Your task to perform on an android device: toggle sleep mode Image 0: 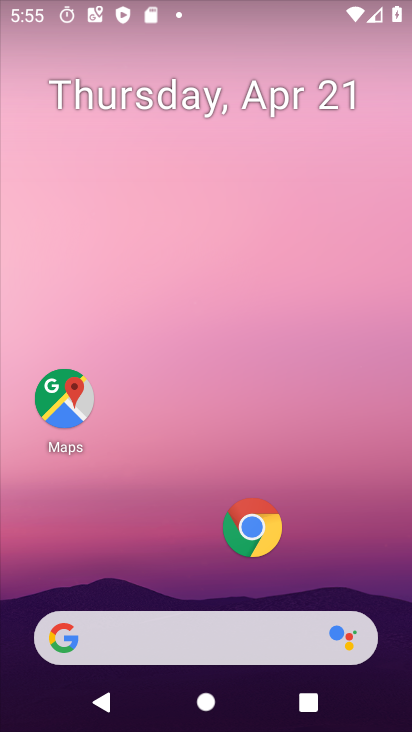
Step 0: drag from (190, 537) to (338, 57)
Your task to perform on an android device: toggle sleep mode Image 1: 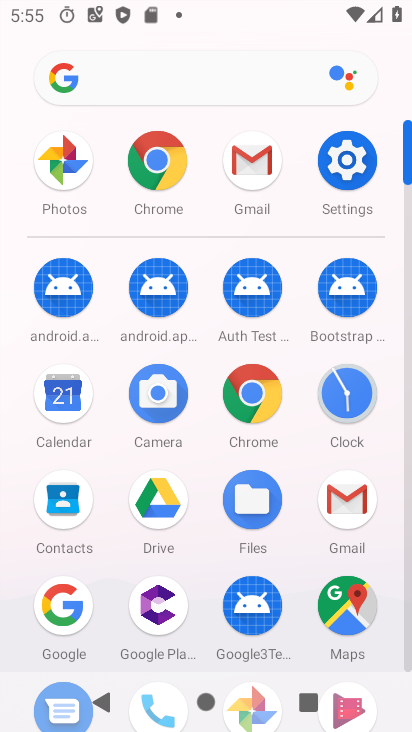
Step 1: click (343, 163)
Your task to perform on an android device: toggle sleep mode Image 2: 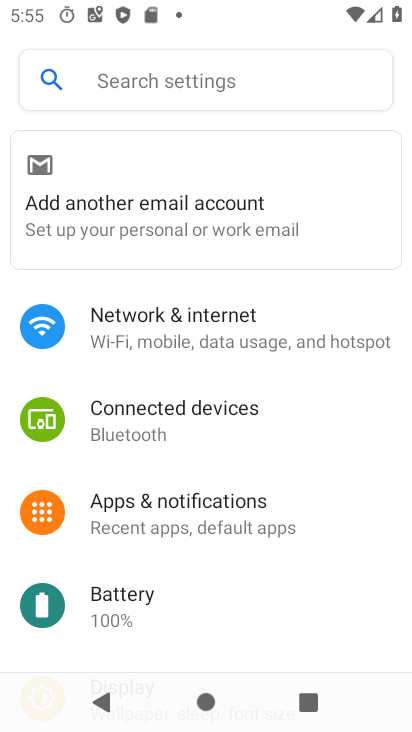
Step 2: click (198, 70)
Your task to perform on an android device: toggle sleep mode Image 3: 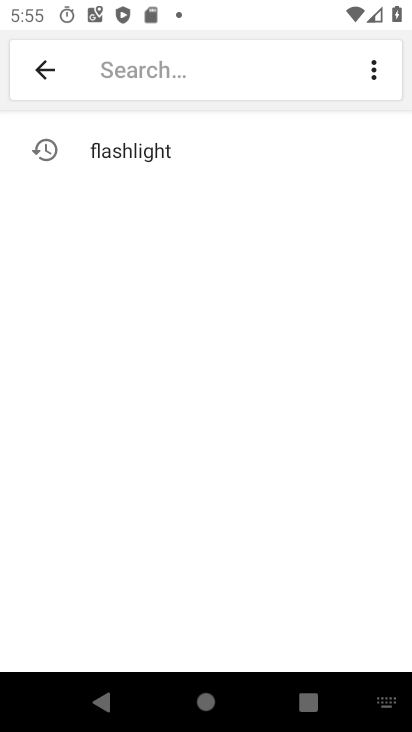
Step 3: type "sleep mode"
Your task to perform on an android device: toggle sleep mode Image 4: 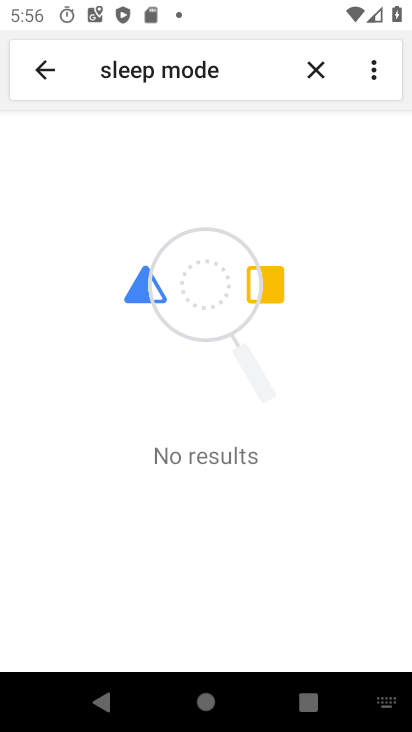
Step 4: task complete